Your task to perform on an android device: Turn on the flashlight Image 0: 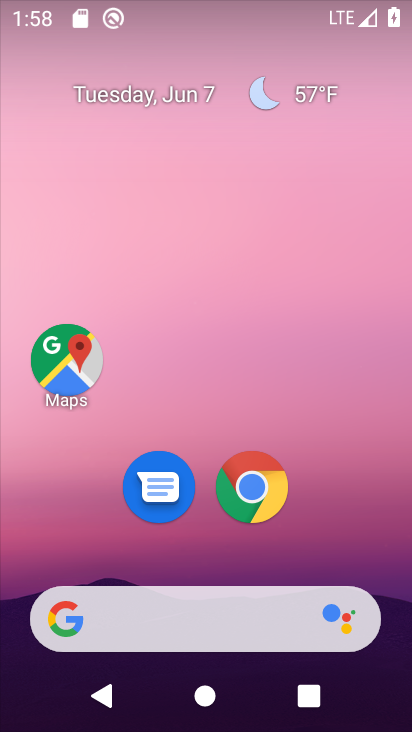
Step 0: drag from (210, 578) to (334, 719)
Your task to perform on an android device: Turn on the flashlight Image 1: 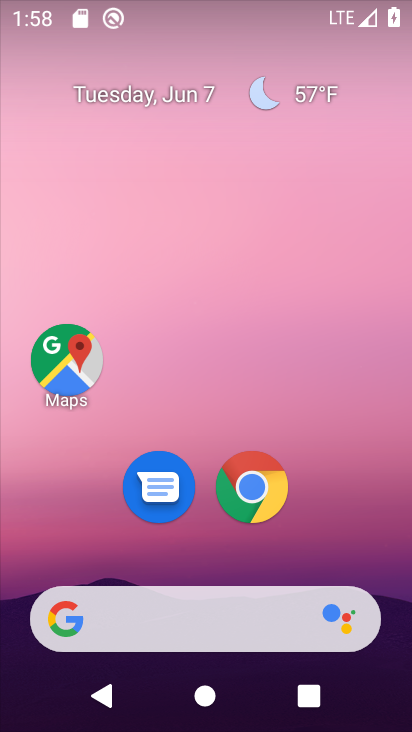
Step 1: drag from (225, 552) to (379, 19)
Your task to perform on an android device: Turn on the flashlight Image 2: 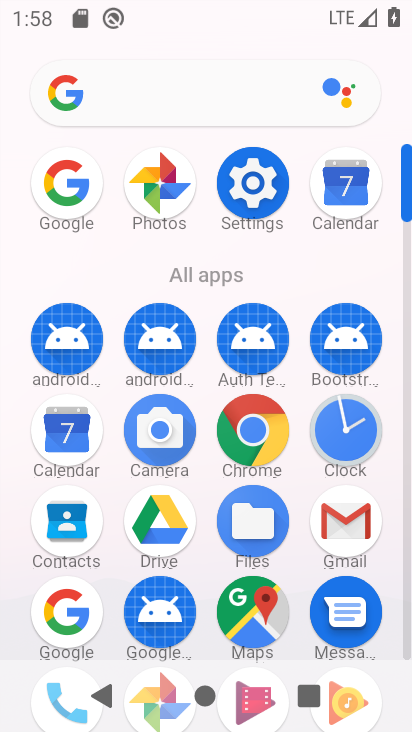
Step 2: click (250, 181)
Your task to perform on an android device: Turn on the flashlight Image 3: 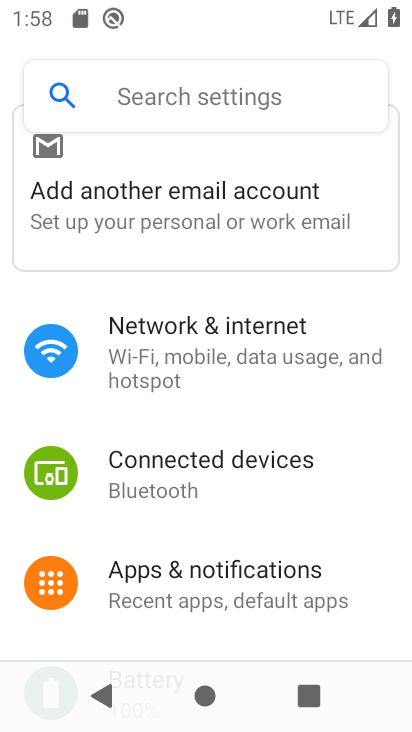
Step 3: task complete